Your task to perform on an android device: remove spam from my inbox in the gmail app Image 0: 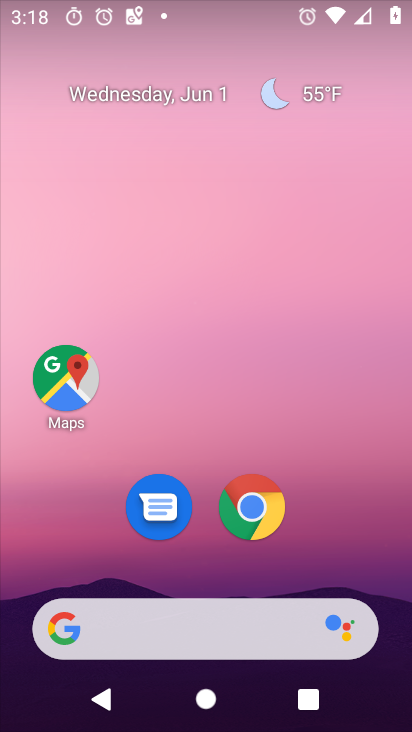
Step 0: drag from (340, 579) to (321, 40)
Your task to perform on an android device: remove spam from my inbox in the gmail app Image 1: 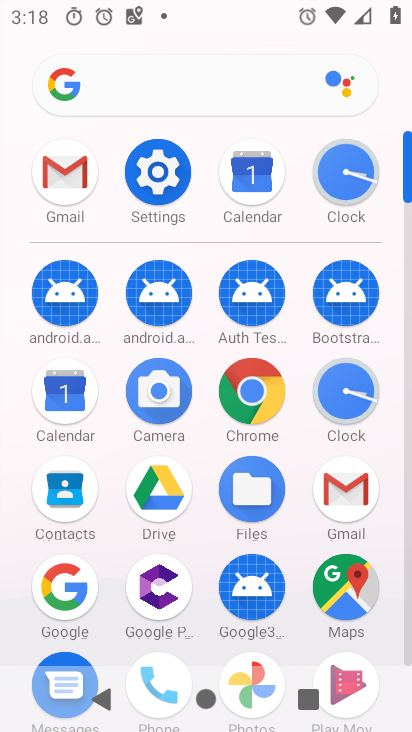
Step 1: click (338, 491)
Your task to perform on an android device: remove spam from my inbox in the gmail app Image 2: 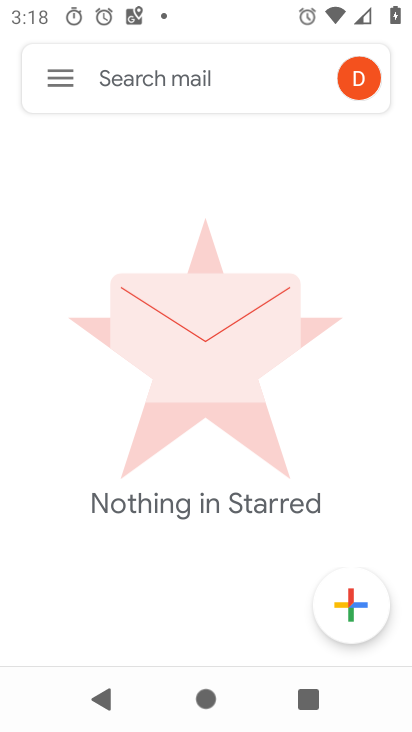
Step 2: click (52, 79)
Your task to perform on an android device: remove spam from my inbox in the gmail app Image 3: 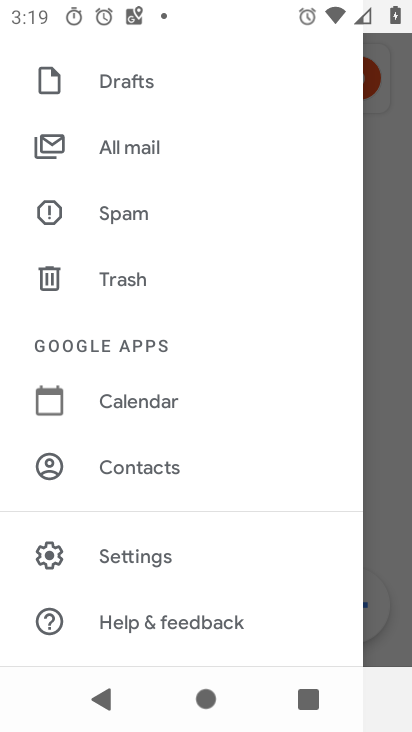
Step 3: click (121, 228)
Your task to perform on an android device: remove spam from my inbox in the gmail app Image 4: 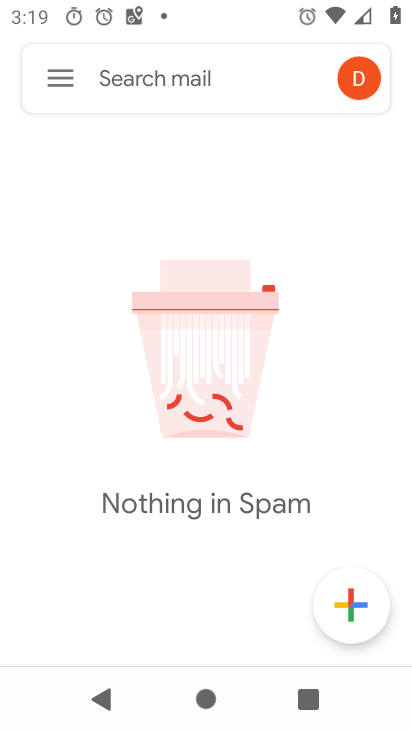
Step 4: task complete